Your task to perform on an android device: Toggle the flashlight Image 0: 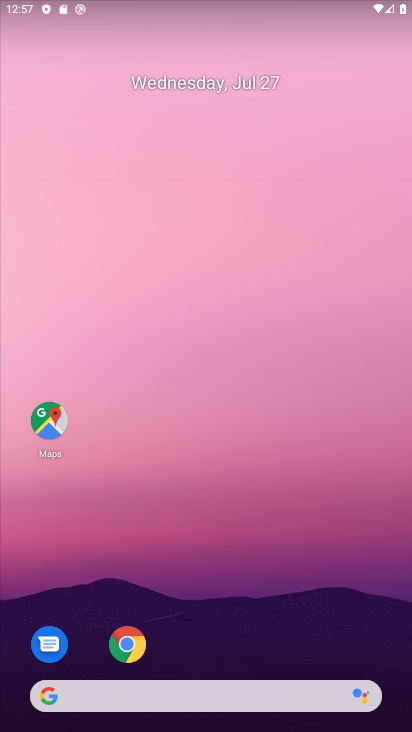
Step 0: drag from (243, 6) to (244, 464)
Your task to perform on an android device: Toggle the flashlight Image 1: 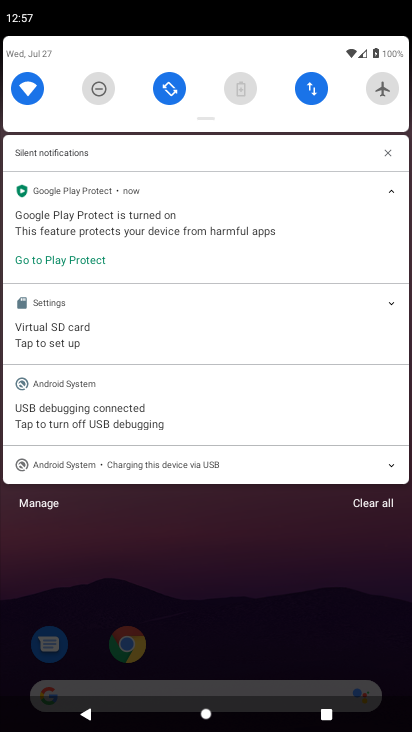
Step 1: drag from (276, 105) to (314, 608)
Your task to perform on an android device: Toggle the flashlight Image 2: 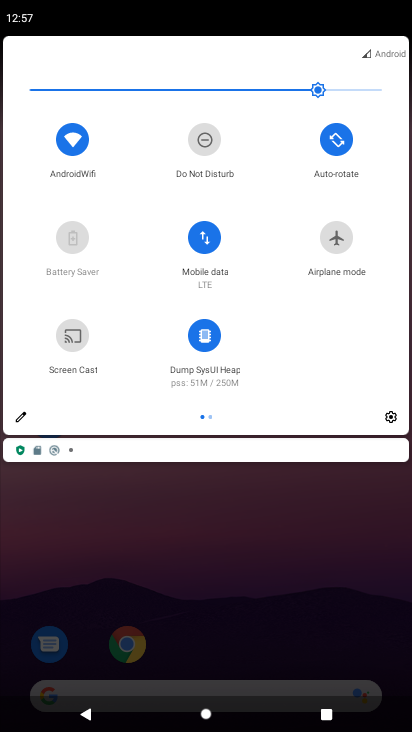
Step 2: click (21, 415)
Your task to perform on an android device: Toggle the flashlight Image 3: 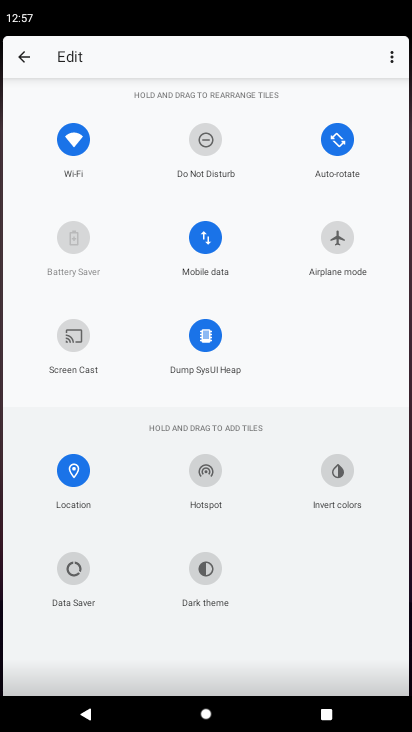
Step 3: task complete